Your task to perform on an android device: turn off location Image 0: 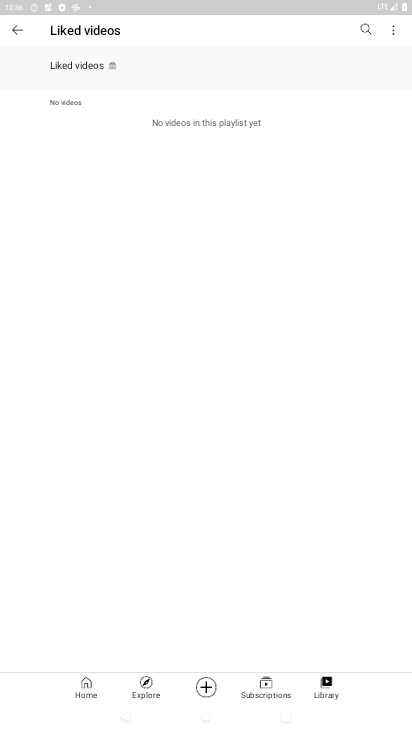
Step 0: press home button
Your task to perform on an android device: turn off location Image 1: 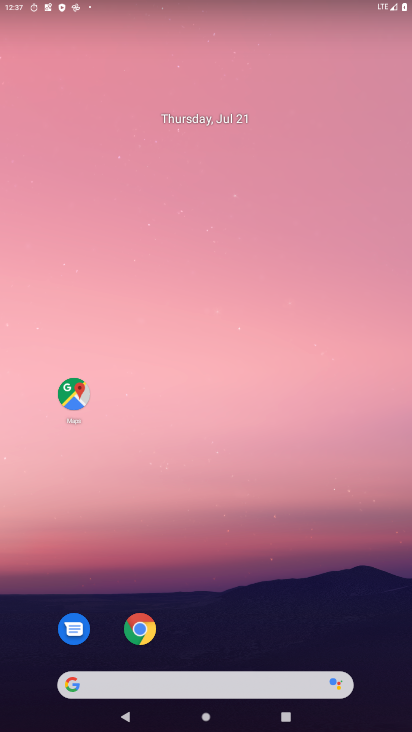
Step 1: drag from (187, 678) to (173, 74)
Your task to perform on an android device: turn off location Image 2: 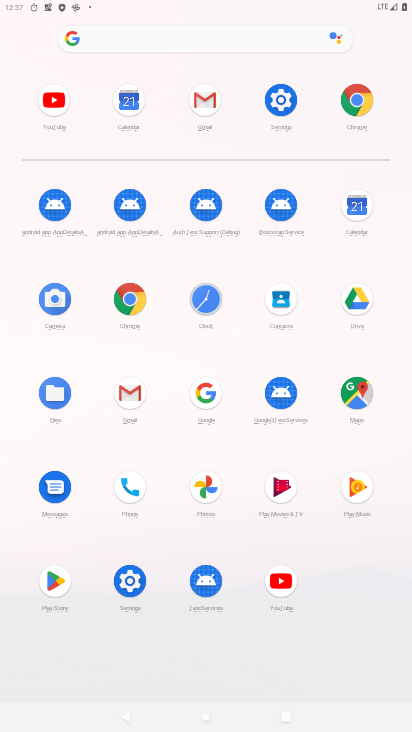
Step 2: click (271, 105)
Your task to perform on an android device: turn off location Image 3: 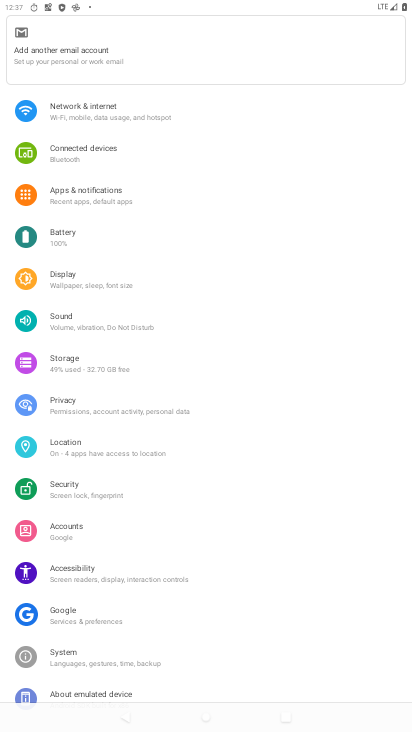
Step 3: click (99, 456)
Your task to perform on an android device: turn off location Image 4: 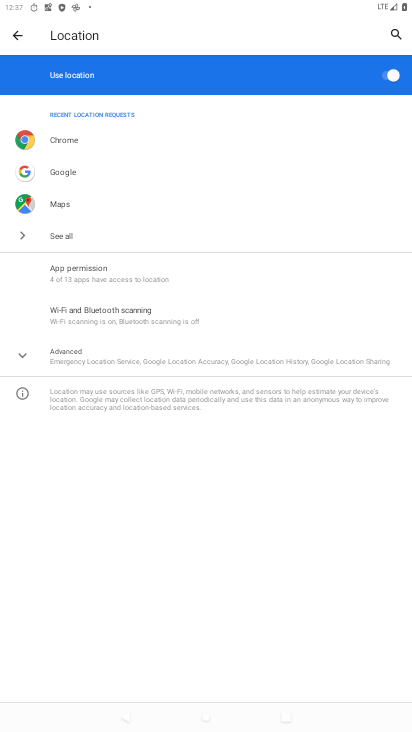
Step 4: click (144, 362)
Your task to perform on an android device: turn off location Image 5: 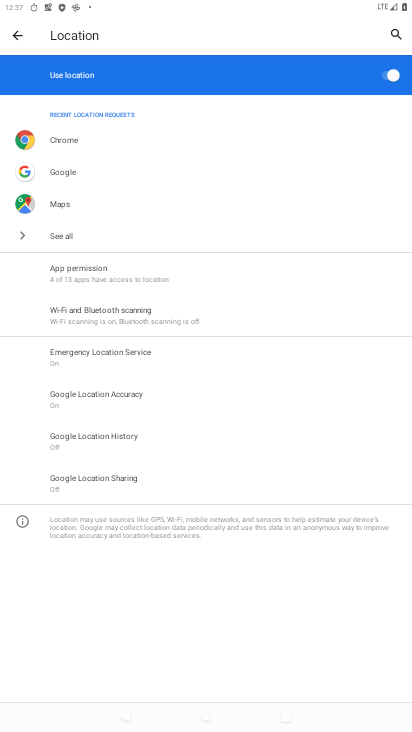
Step 5: click (383, 77)
Your task to perform on an android device: turn off location Image 6: 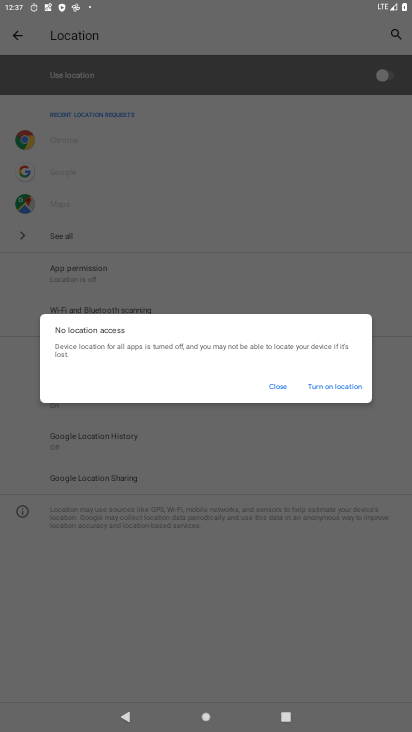
Step 6: task complete